Your task to perform on an android device: turn off improve location accuracy Image 0: 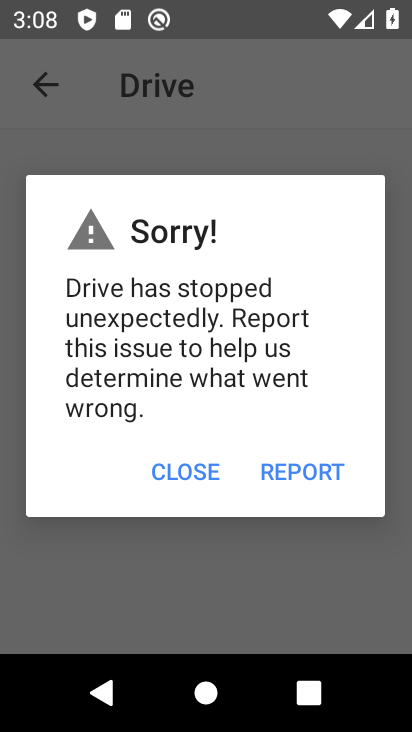
Step 0: press home button
Your task to perform on an android device: turn off improve location accuracy Image 1: 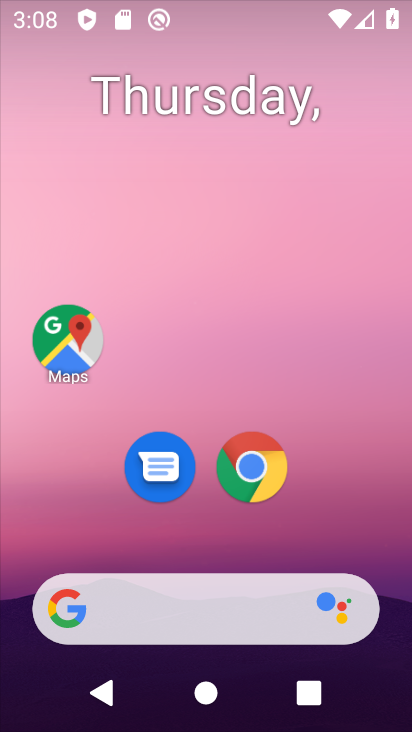
Step 1: drag from (220, 593) to (235, 191)
Your task to perform on an android device: turn off improve location accuracy Image 2: 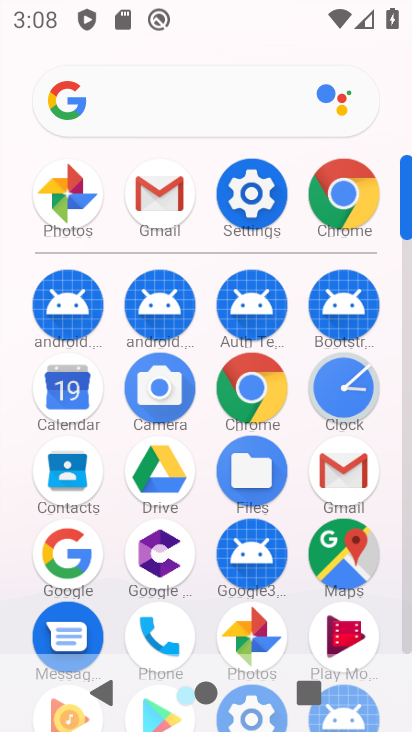
Step 2: click (244, 216)
Your task to perform on an android device: turn off improve location accuracy Image 3: 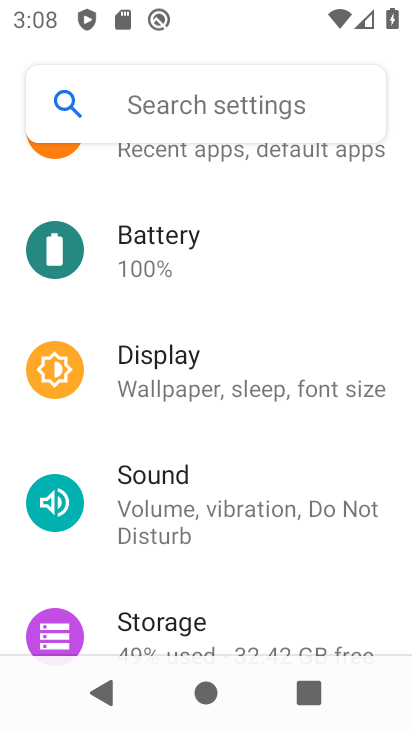
Step 3: drag from (214, 523) to (204, 223)
Your task to perform on an android device: turn off improve location accuracy Image 4: 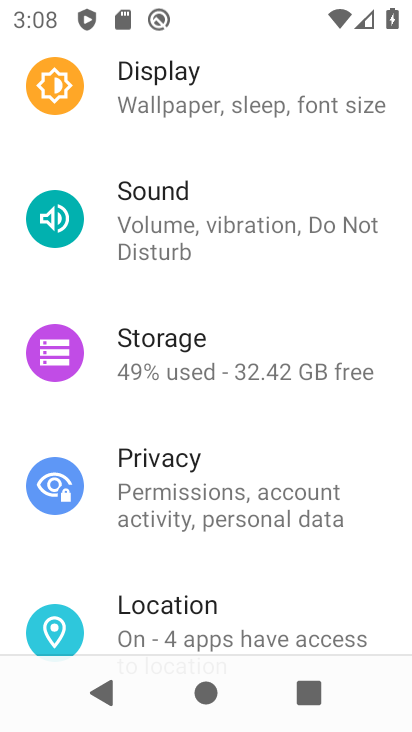
Step 4: click (195, 611)
Your task to perform on an android device: turn off improve location accuracy Image 5: 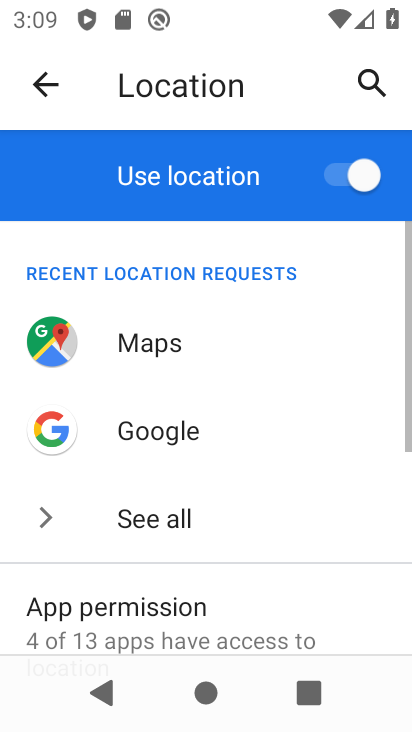
Step 5: drag from (210, 529) to (220, 140)
Your task to perform on an android device: turn off improve location accuracy Image 6: 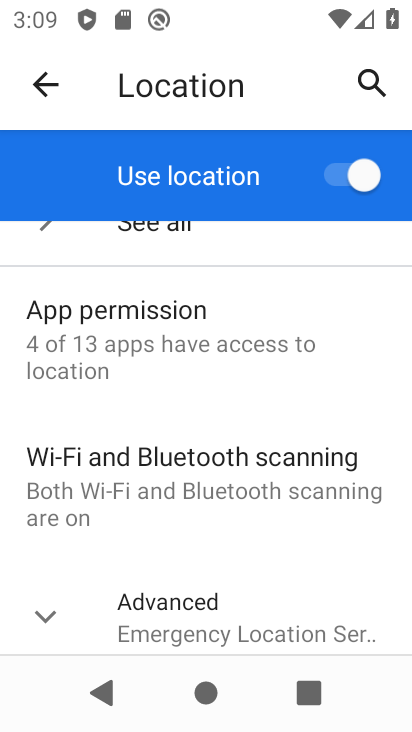
Step 6: click (229, 609)
Your task to perform on an android device: turn off improve location accuracy Image 7: 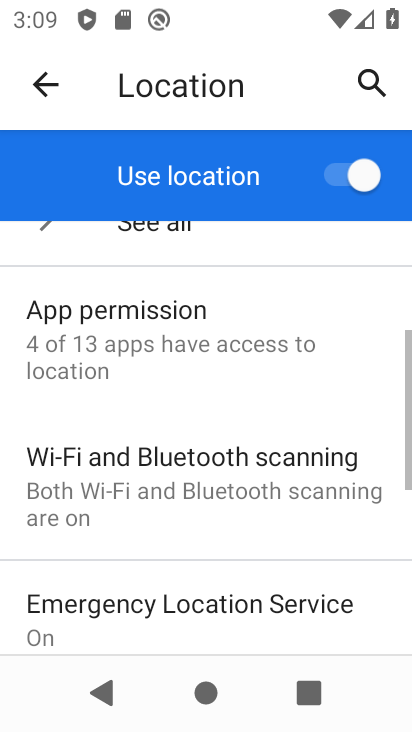
Step 7: drag from (206, 606) to (146, 240)
Your task to perform on an android device: turn off improve location accuracy Image 8: 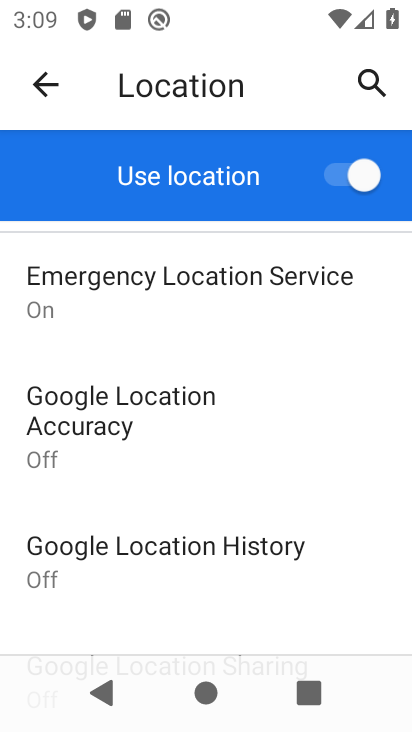
Step 8: click (160, 432)
Your task to perform on an android device: turn off improve location accuracy Image 9: 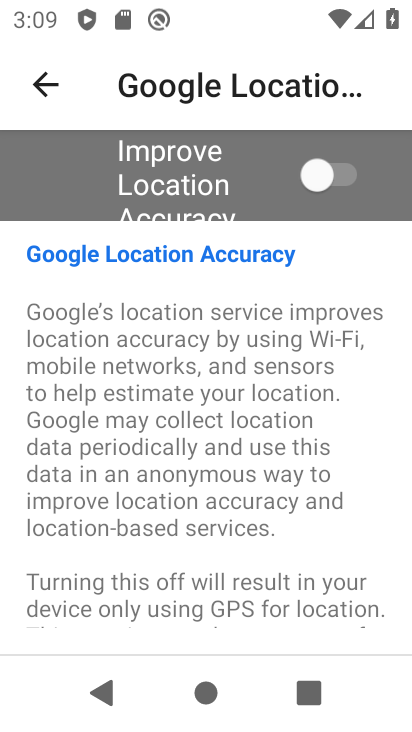
Step 9: task complete